Your task to perform on an android device: Show the shopping cart on amazon. Image 0: 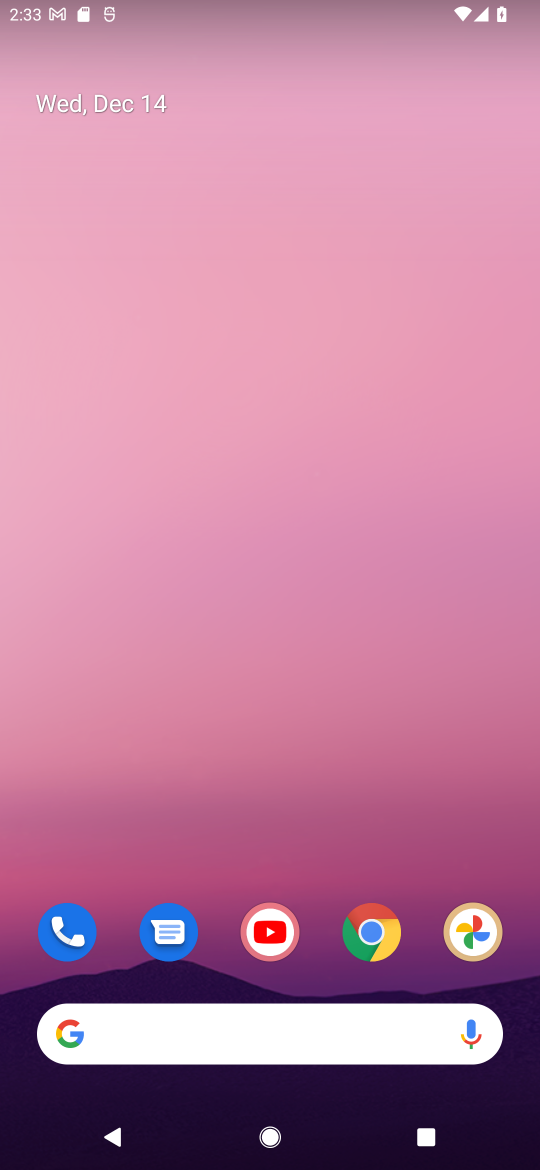
Step 0: click (257, 1037)
Your task to perform on an android device: Show the shopping cart on amazon. Image 1: 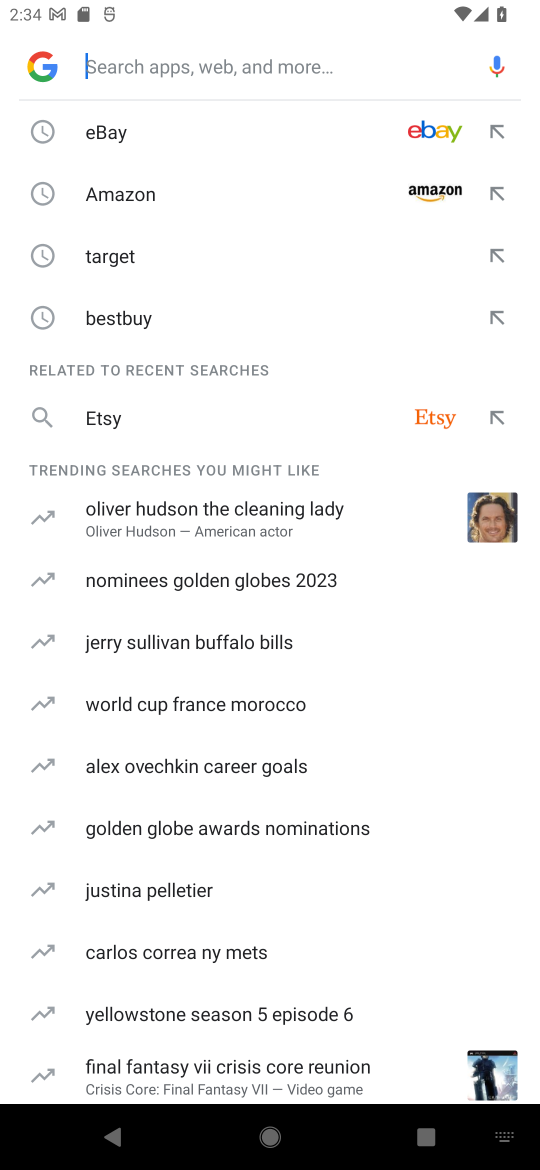
Step 1: click (181, 201)
Your task to perform on an android device: Show the shopping cart on amazon. Image 2: 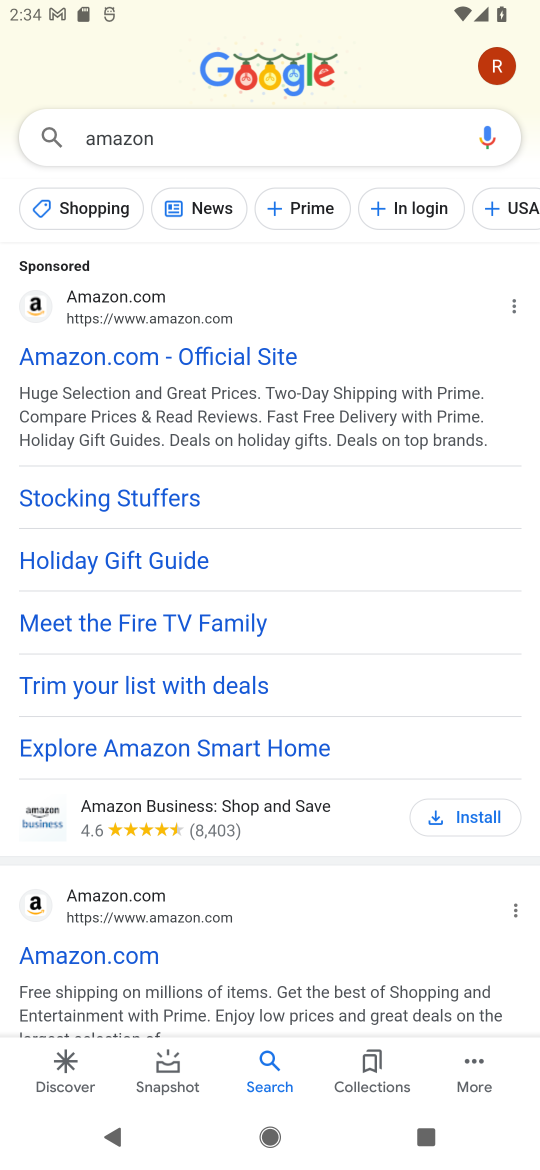
Step 2: click (113, 952)
Your task to perform on an android device: Show the shopping cart on amazon. Image 3: 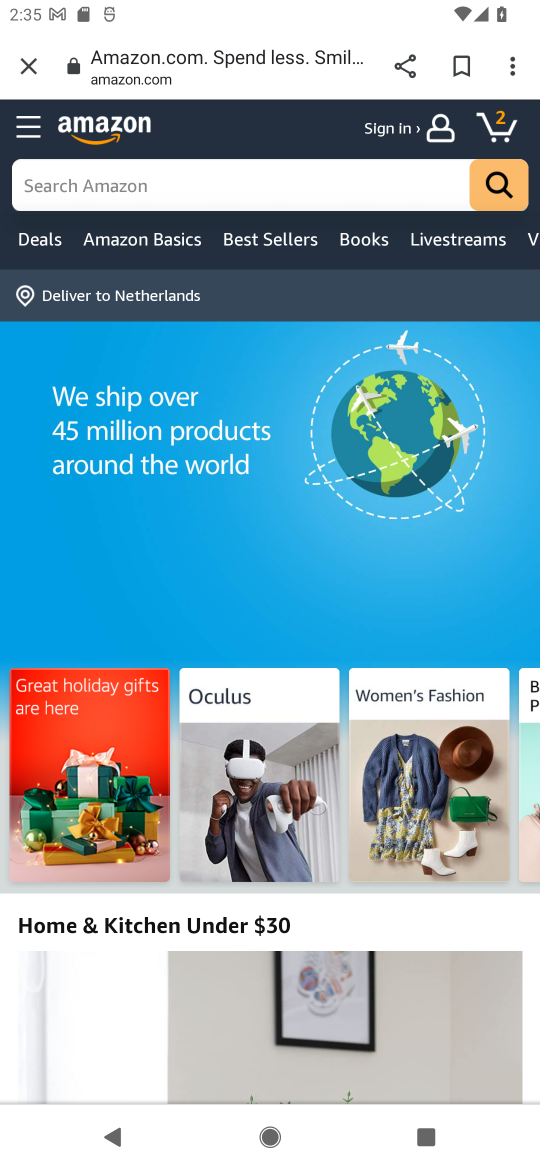
Step 3: click (492, 122)
Your task to perform on an android device: Show the shopping cart on amazon. Image 4: 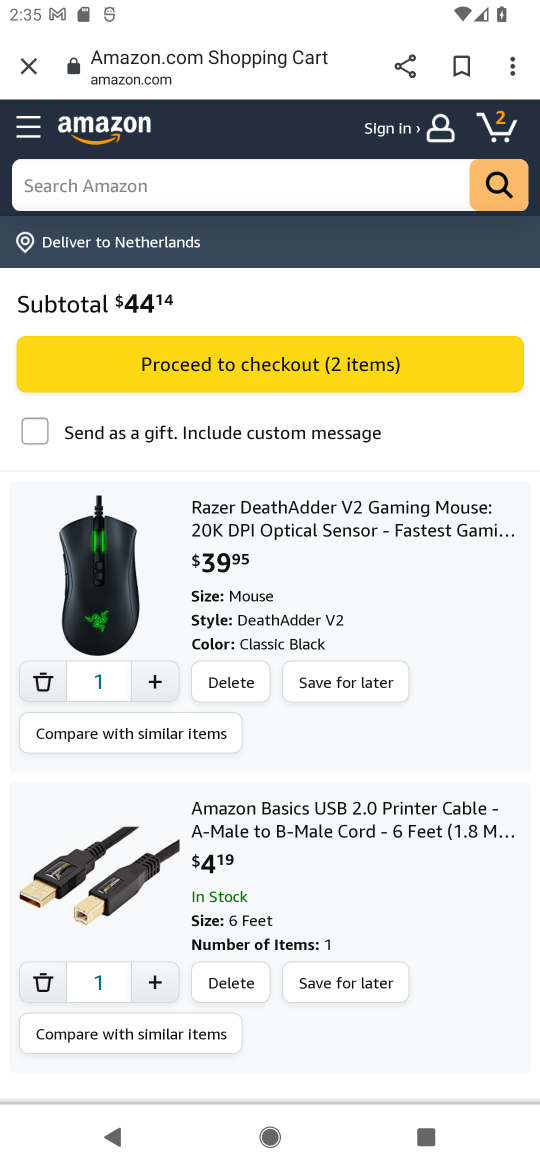
Step 4: task complete